Your task to perform on an android device: open app "Etsy: Buy & Sell Unique Items" (install if not already installed) Image 0: 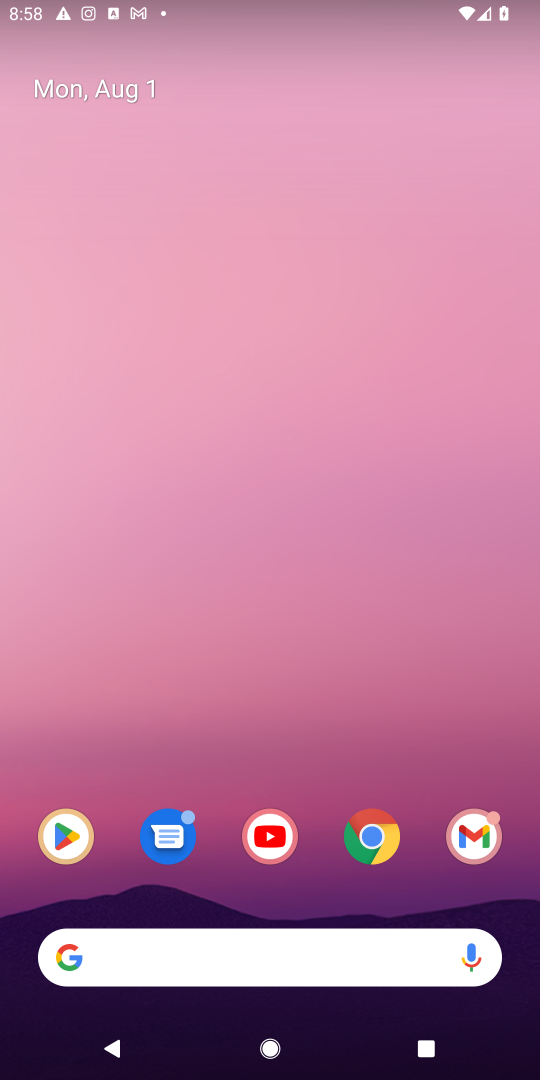
Step 0: press home button
Your task to perform on an android device: open app "Etsy: Buy & Sell Unique Items" (install if not already installed) Image 1: 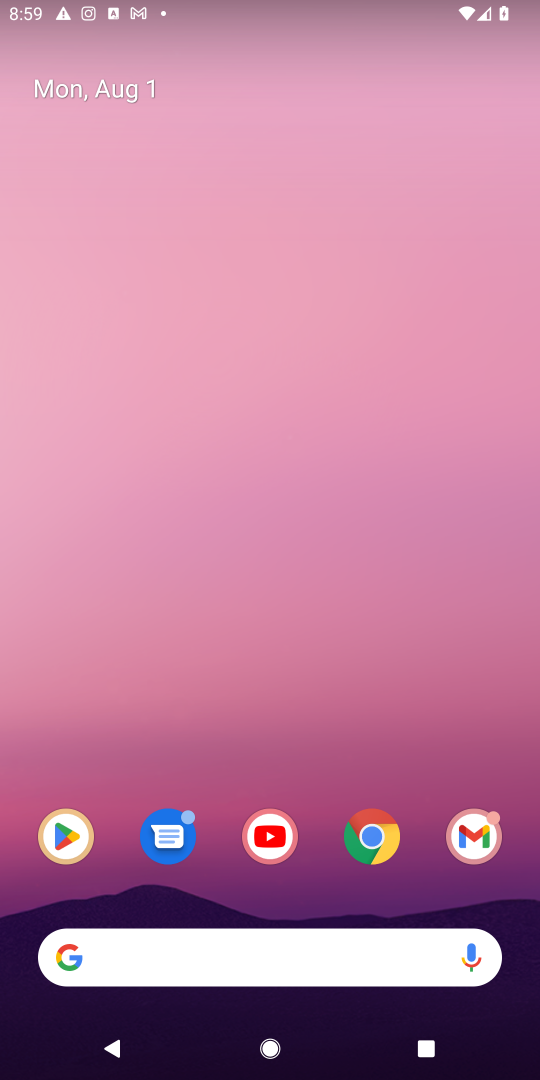
Step 1: click (71, 837)
Your task to perform on an android device: open app "Etsy: Buy & Sell Unique Items" (install if not already installed) Image 2: 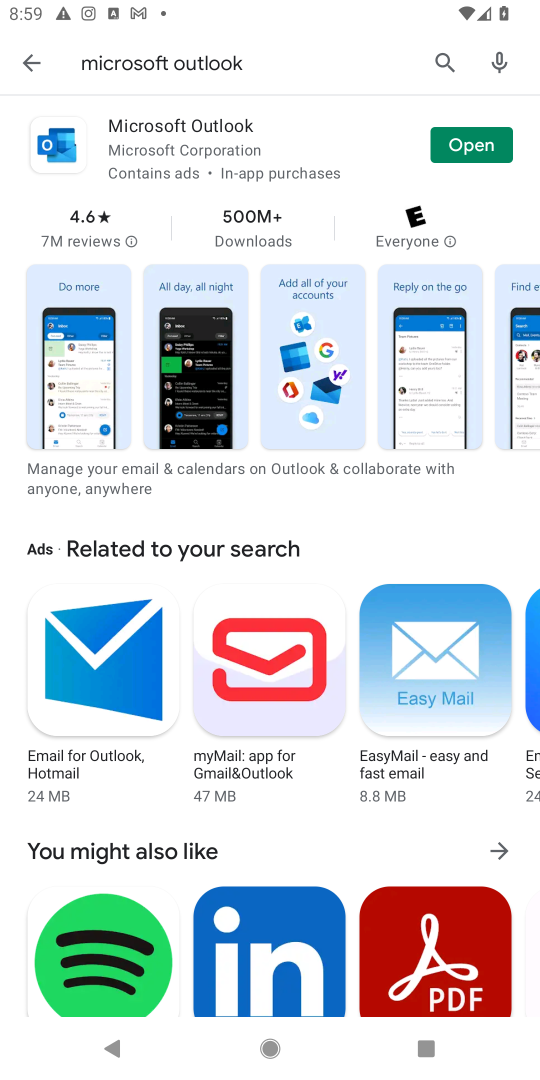
Step 2: click (435, 50)
Your task to perform on an android device: open app "Etsy: Buy & Sell Unique Items" (install if not already installed) Image 3: 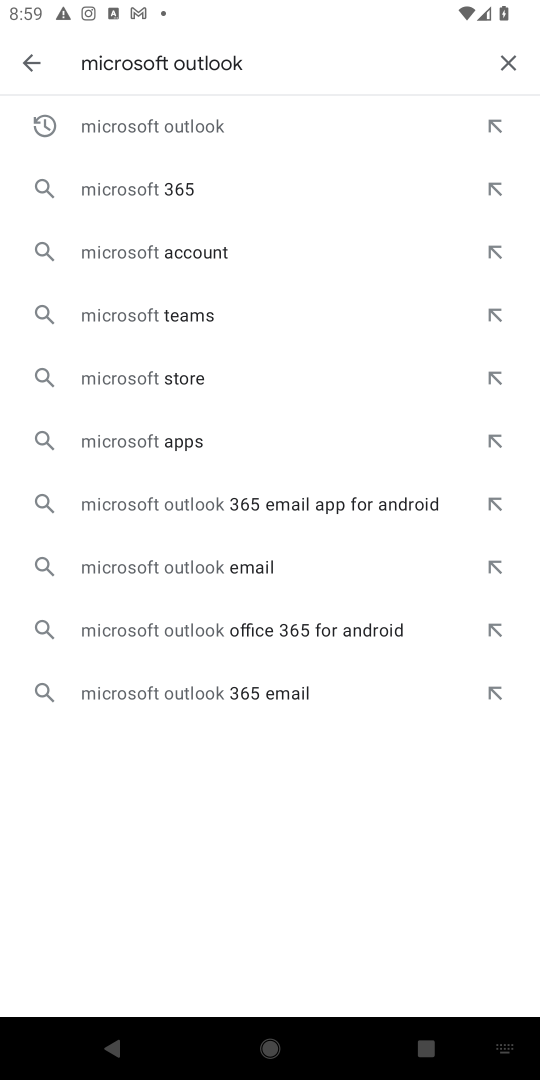
Step 3: click (512, 50)
Your task to perform on an android device: open app "Etsy: Buy & Sell Unique Items" (install if not already installed) Image 4: 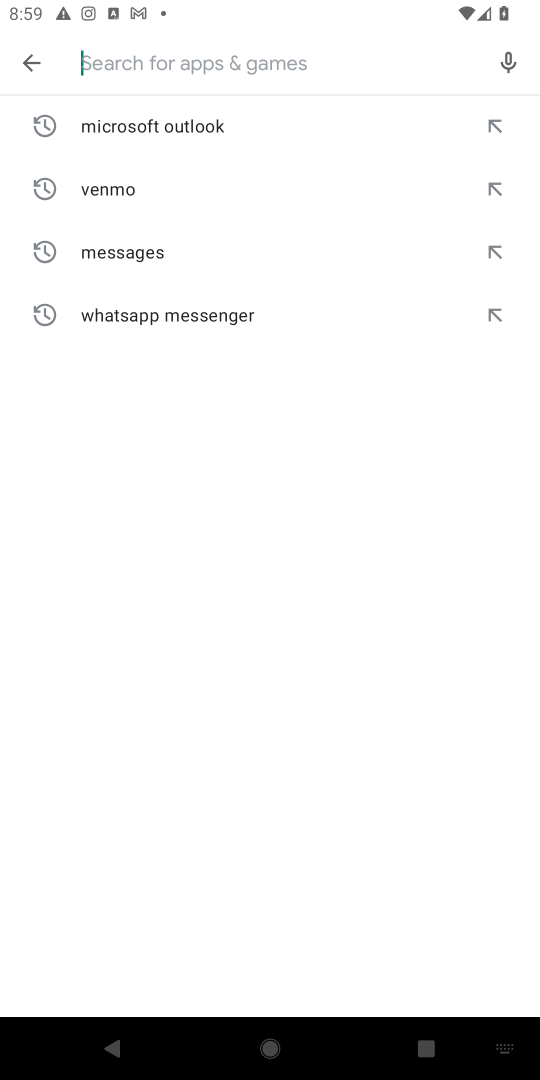
Step 4: type "Etsy: Buy & Sell Unique Items"
Your task to perform on an android device: open app "Etsy: Buy & Sell Unique Items" (install if not already installed) Image 5: 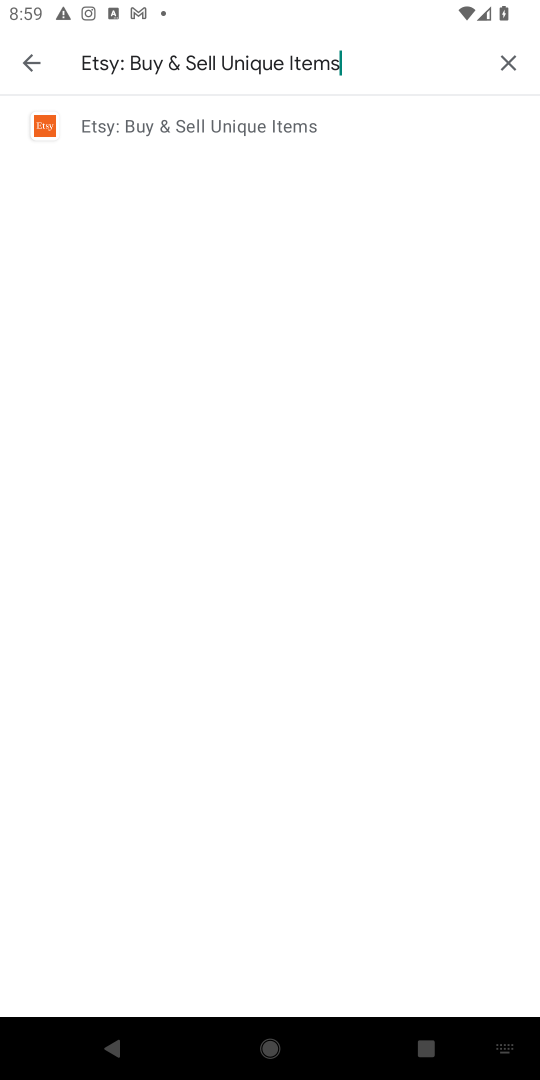
Step 5: click (136, 114)
Your task to perform on an android device: open app "Etsy: Buy & Sell Unique Items" (install if not already installed) Image 6: 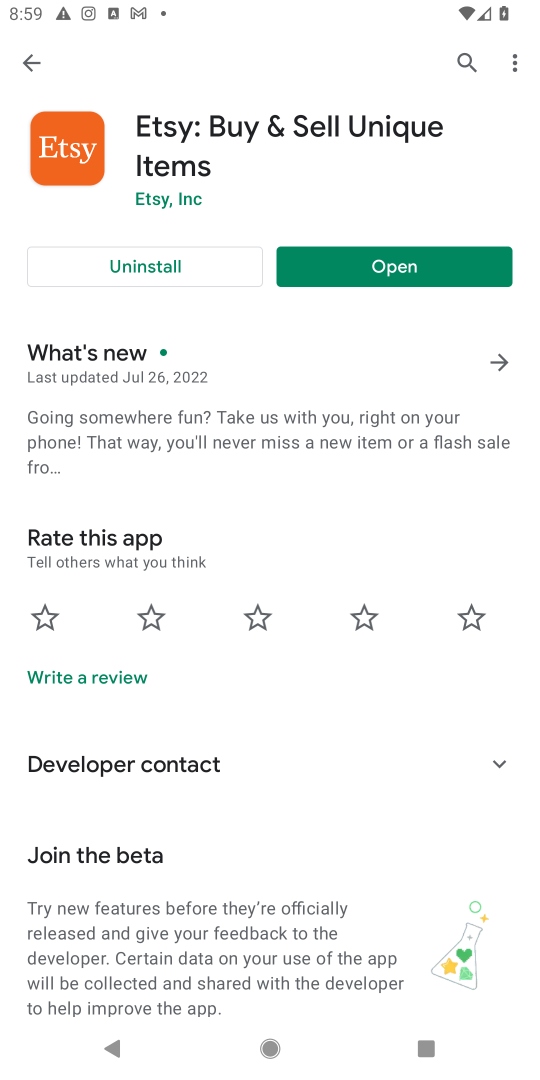
Step 6: click (435, 264)
Your task to perform on an android device: open app "Etsy: Buy & Sell Unique Items" (install if not already installed) Image 7: 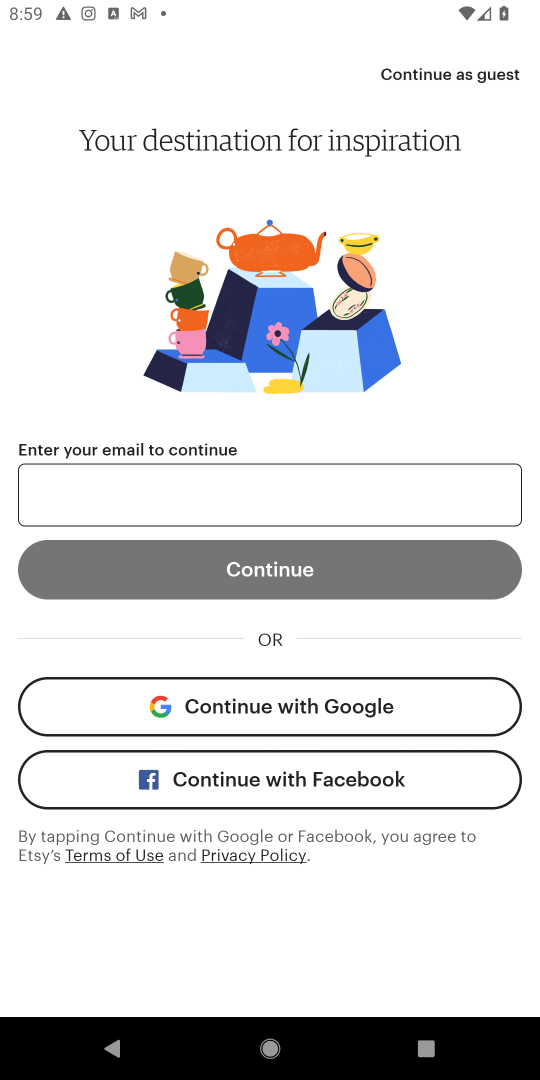
Step 7: task complete